Your task to perform on an android device: Open location settings Image 0: 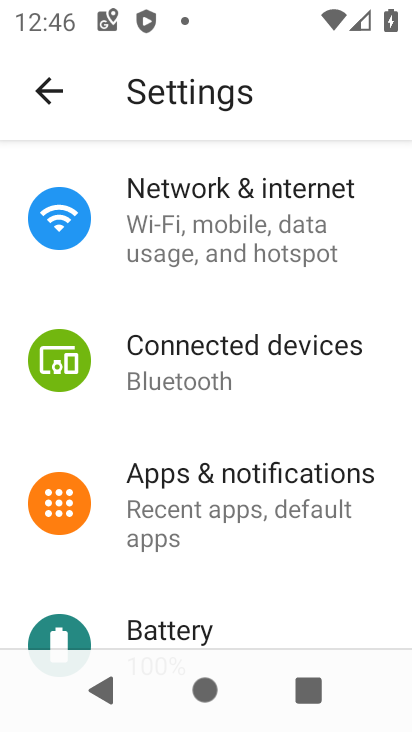
Step 0: drag from (387, 581) to (374, 285)
Your task to perform on an android device: Open location settings Image 1: 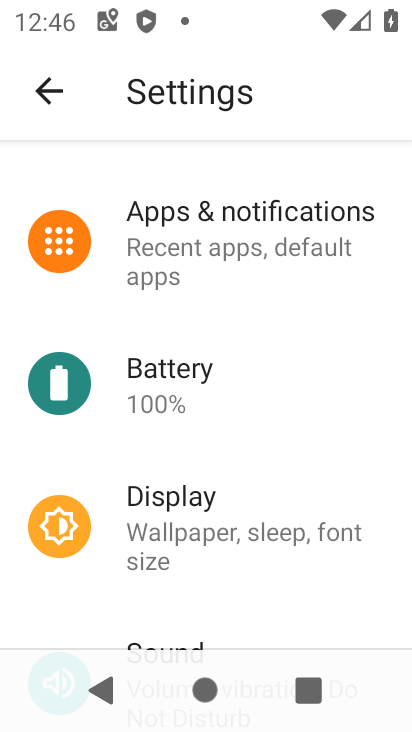
Step 1: drag from (359, 583) to (352, 367)
Your task to perform on an android device: Open location settings Image 2: 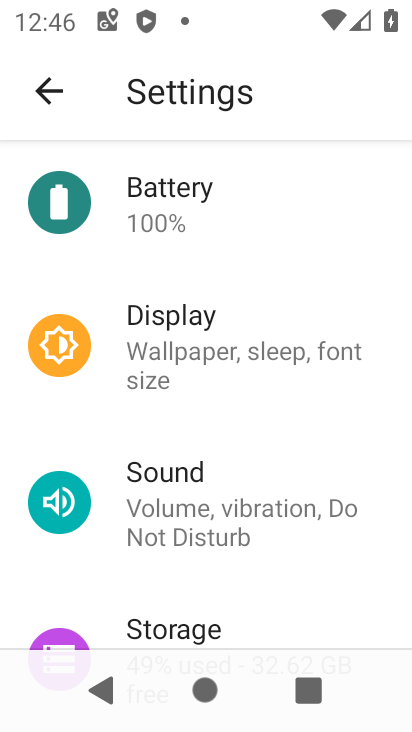
Step 2: drag from (358, 601) to (376, 382)
Your task to perform on an android device: Open location settings Image 3: 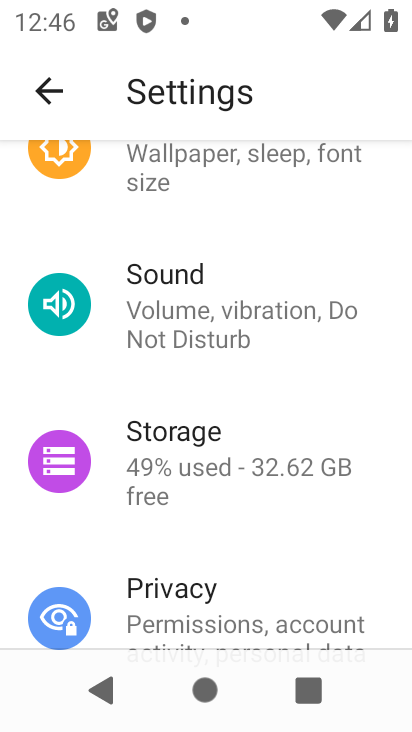
Step 3: drag from (358, 522) to (369, 363)
Your task to perform on an android device: Open location settings Image 4: 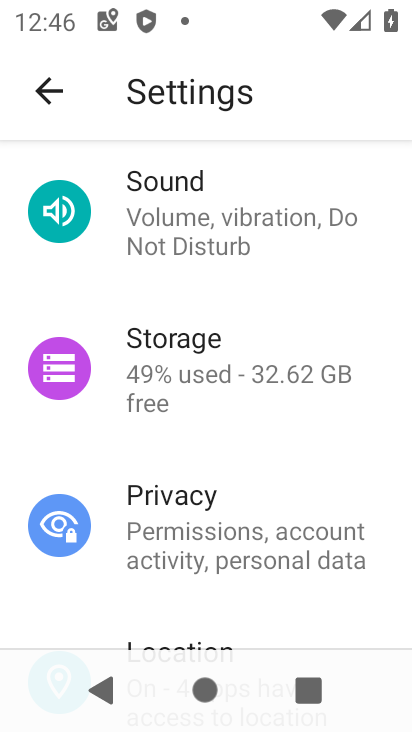
Step 4: drag from (339, 612) to (341, 392)
Your task to perform on an android device: Open location settings Image 5: 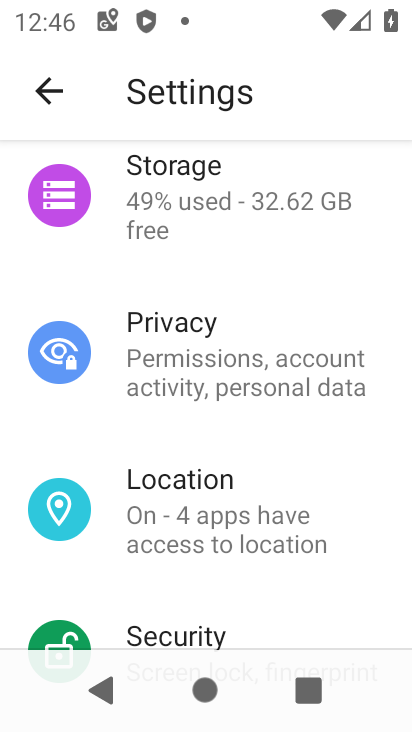
Step 5: drag from (347, 605) to (356, 404)
Your task to perform on an android device: Open location settings Image 6: 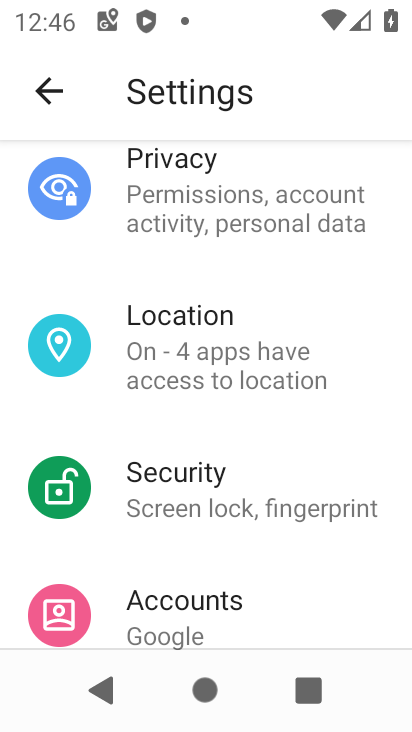
Step 6: click (239, 331)
Your task to perform on an android device: Open location settings Image 7: 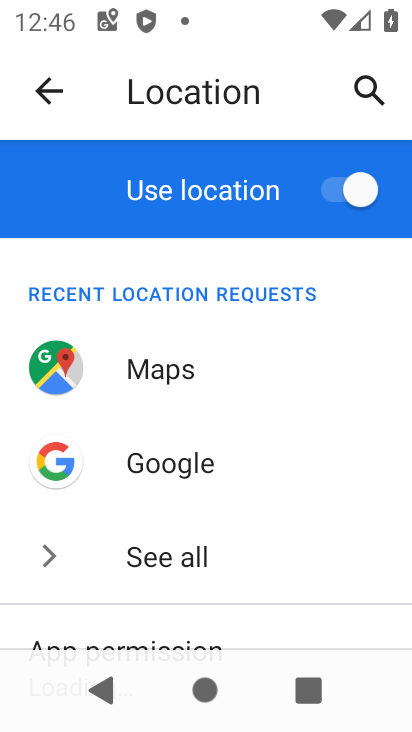
Step 7: task complete